Your task to perform on an android device: Open Google Maps and go to "Timeline" Image 0: 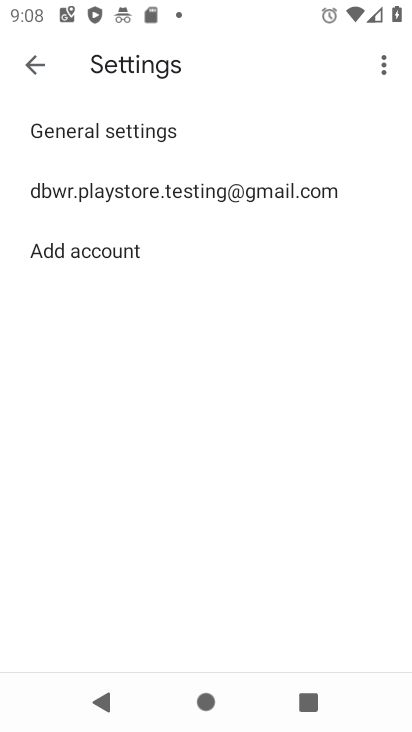
Step 0: press home button
Your task to perform on an android device: Open Google Maps and go to "Timeline" Image 1: 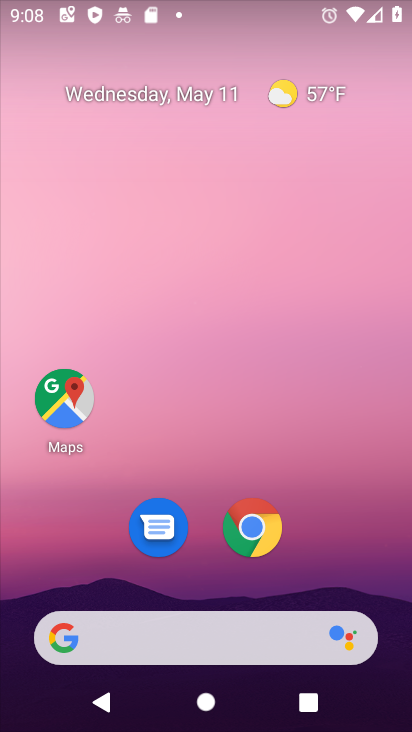
Step 1: click (59, 403)
Your task to perform on an android device: Open Google Maps and go to "Timeline" Image 2: 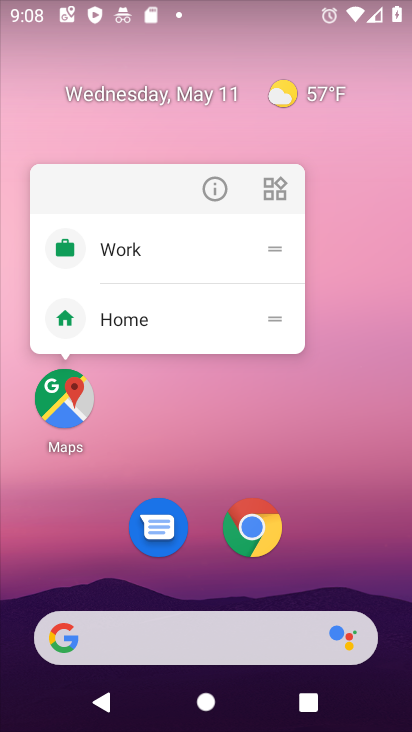
Step 2: click (63, 399)
Your task to perform on an android device: Open Google Maps and go to "Timeline" Image 3: 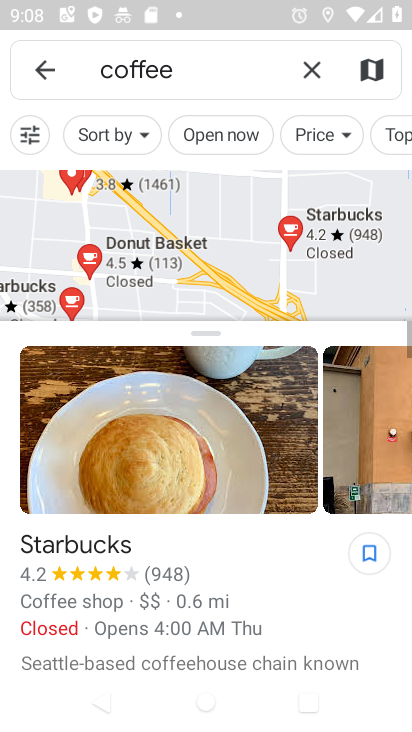
Step 3: click (308, 76)
Your task to perform on an android device: Open Google Maps and go to "Timeline" Image 4: 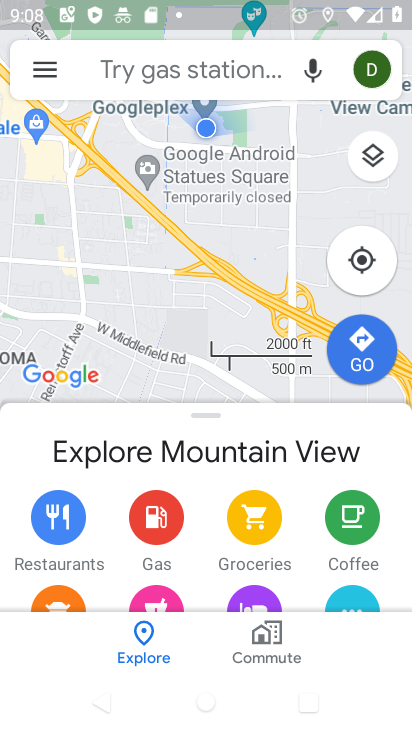
Step 4: click (46, 75)
Your task to perform on an android device: Open Google Maps and go to "Timeline" Image 5: 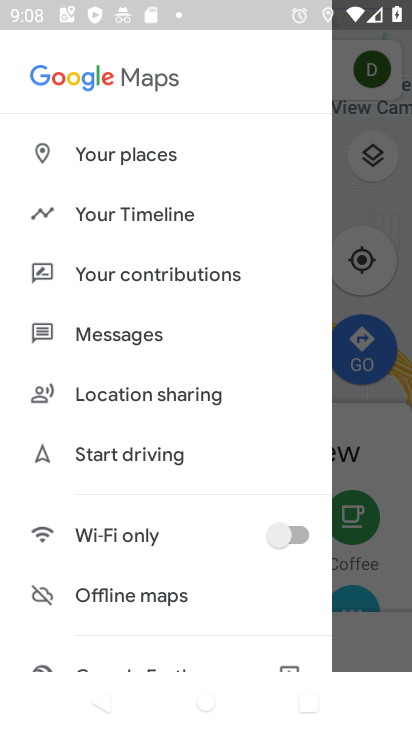
Step 5: click (104, 220)
Your task to perform on an android device: Open Google Maps and go to "Timeline" Image 6: 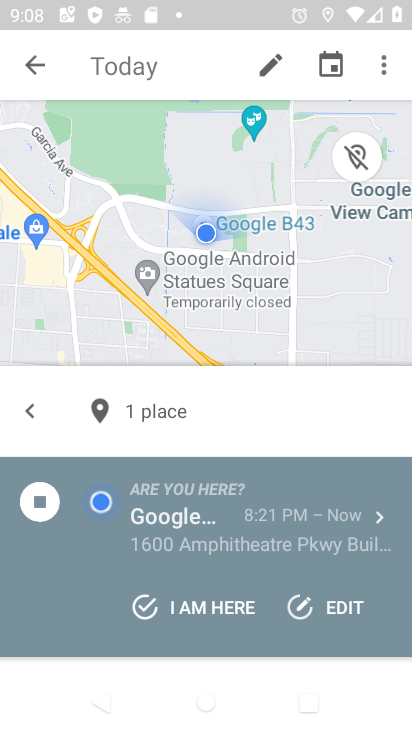
Step 6: task complete